Your task to perform on an android device: turn on data saver in the chrome app Image 0: 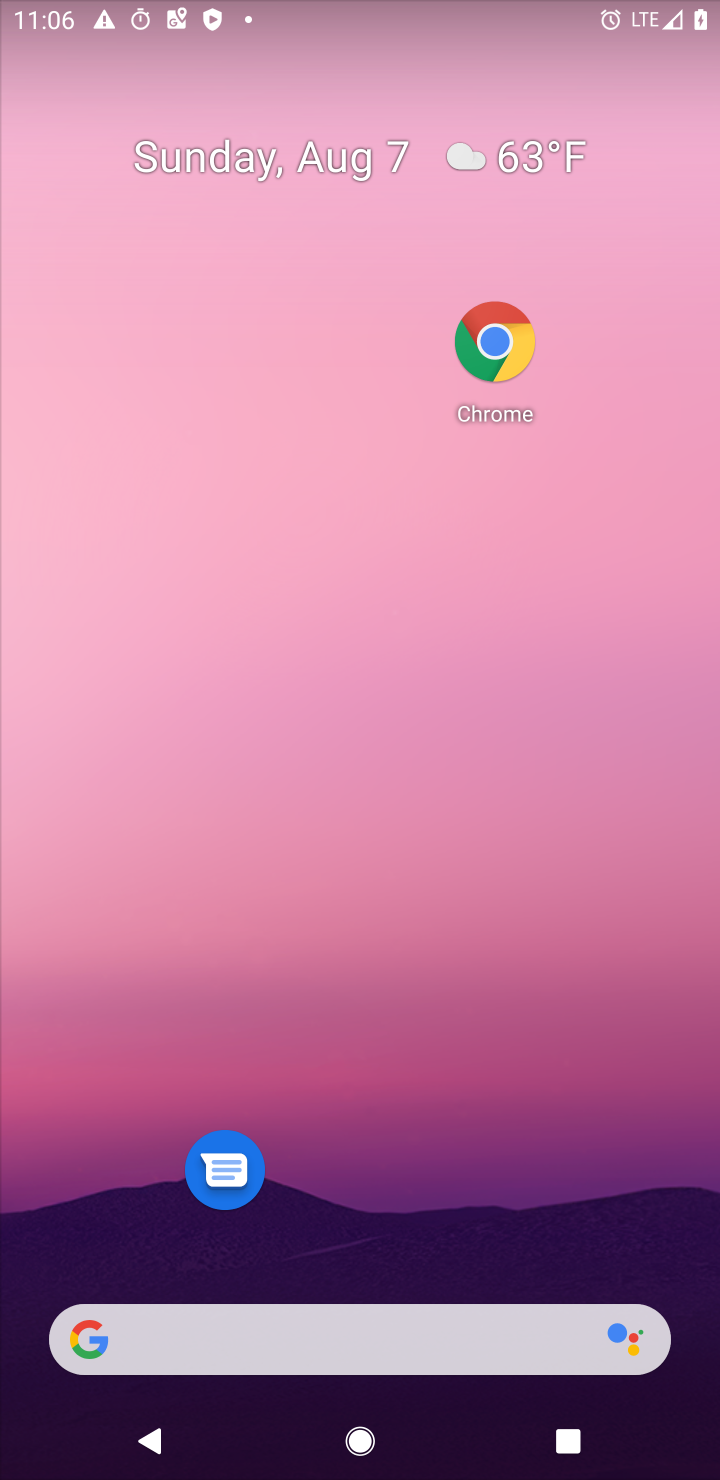
Step 0: drag from (328, 1322) to (246, 18)
Your task to perform on an android device: turn on data saver in the chrome app Image 1: 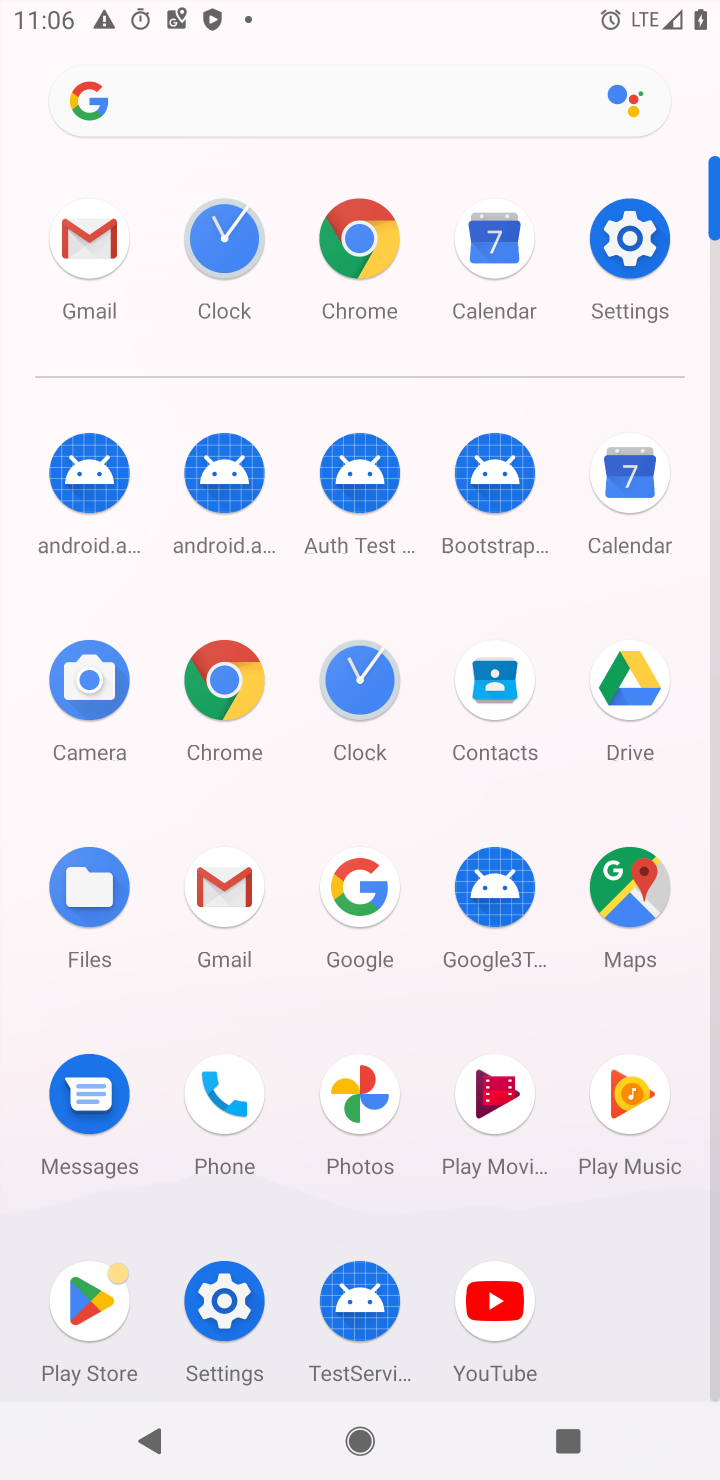
Step 1: click (222, 682)
Your task to perform on an android device: turn on data saver in the chrome app Image 2: 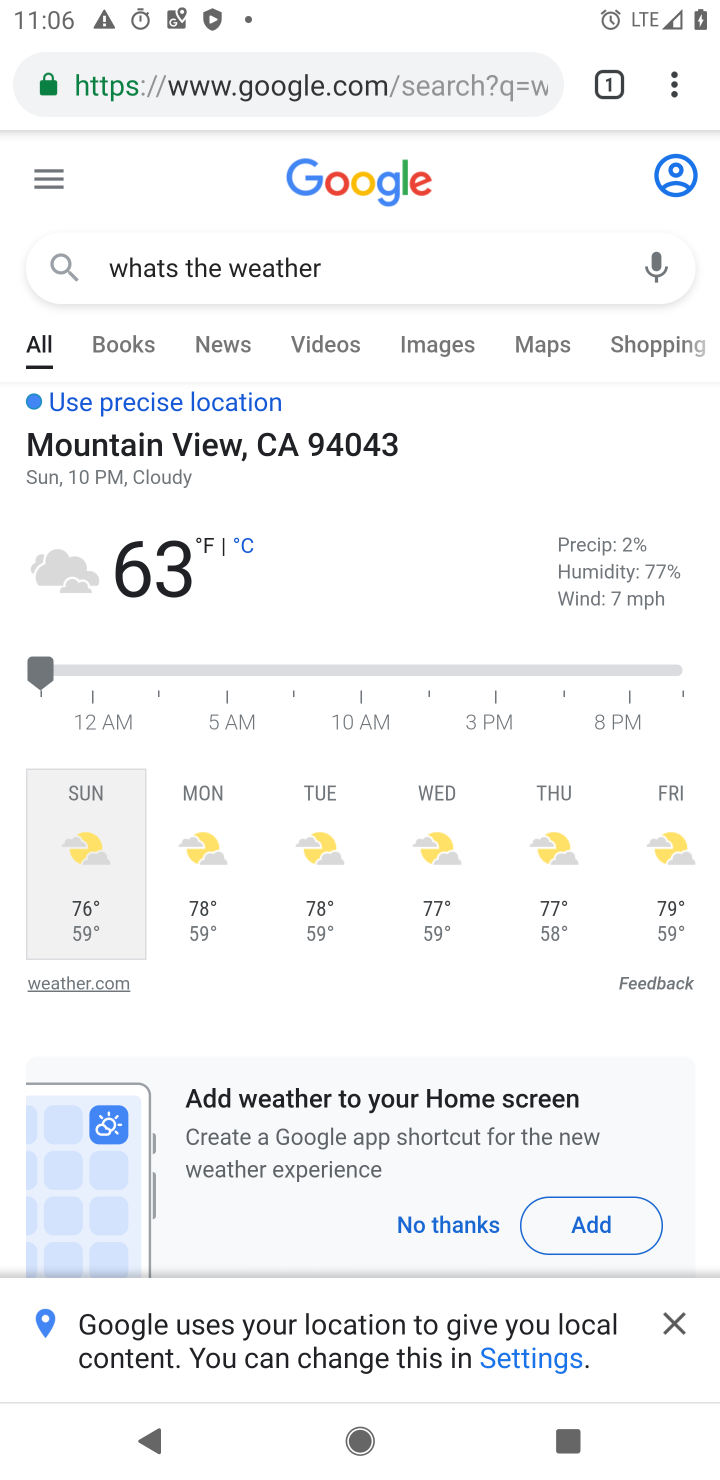
Step 2: click (660, 87)
Your task to perform on an android device: turn on data saver in the chrome app Image 3: 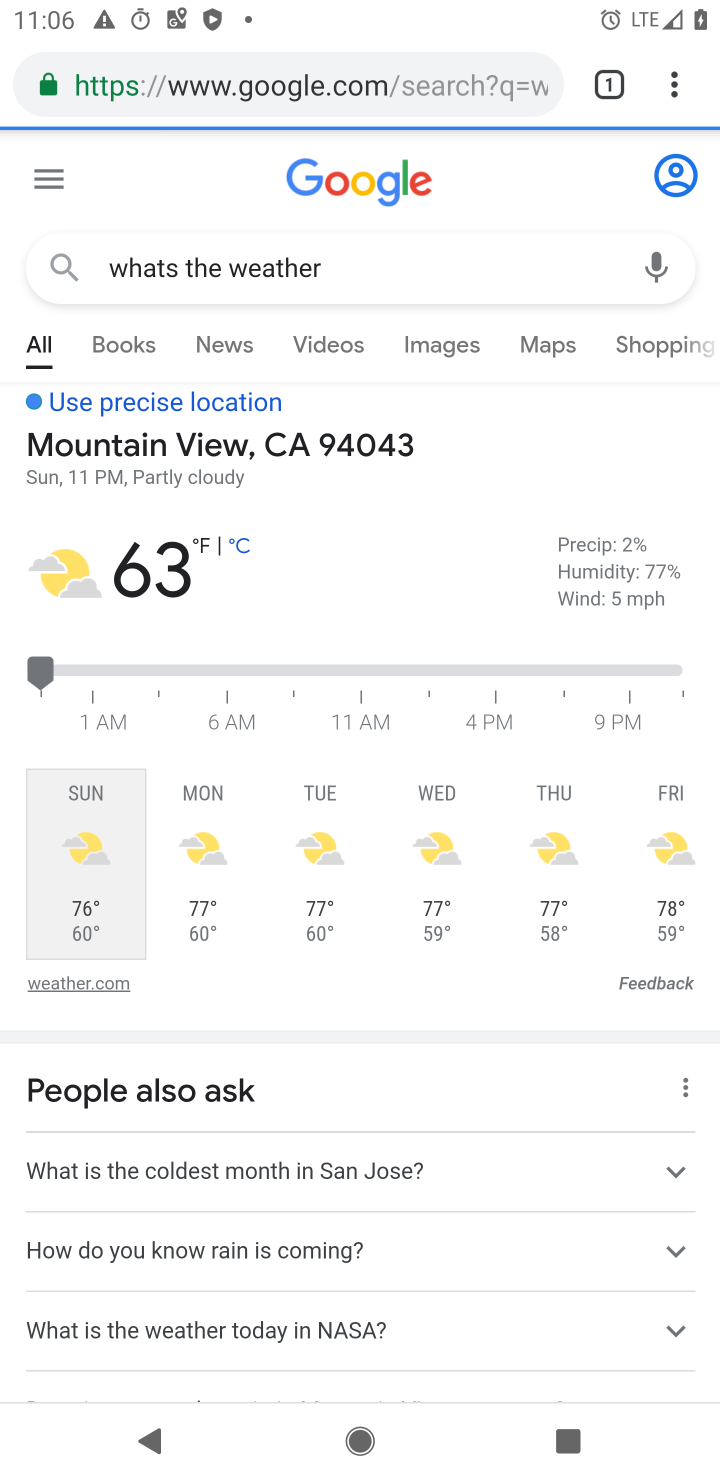
Step 3: click (679, 82)
Your task to perform on an android device: turn on data saver in the chrome app Image 4: 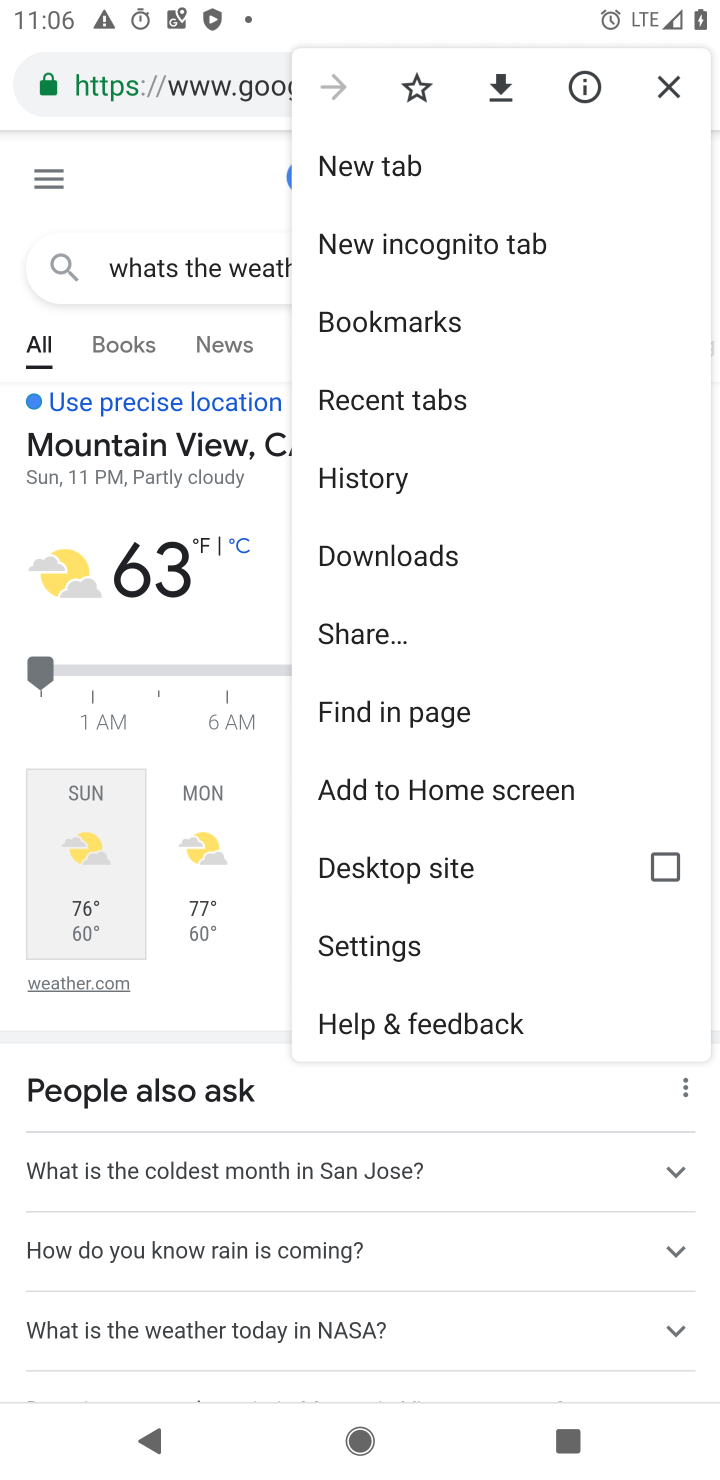
Step 4: click (406, 947)
Your task to perform on an android device: turn on data saver in the chrome app Image 5: 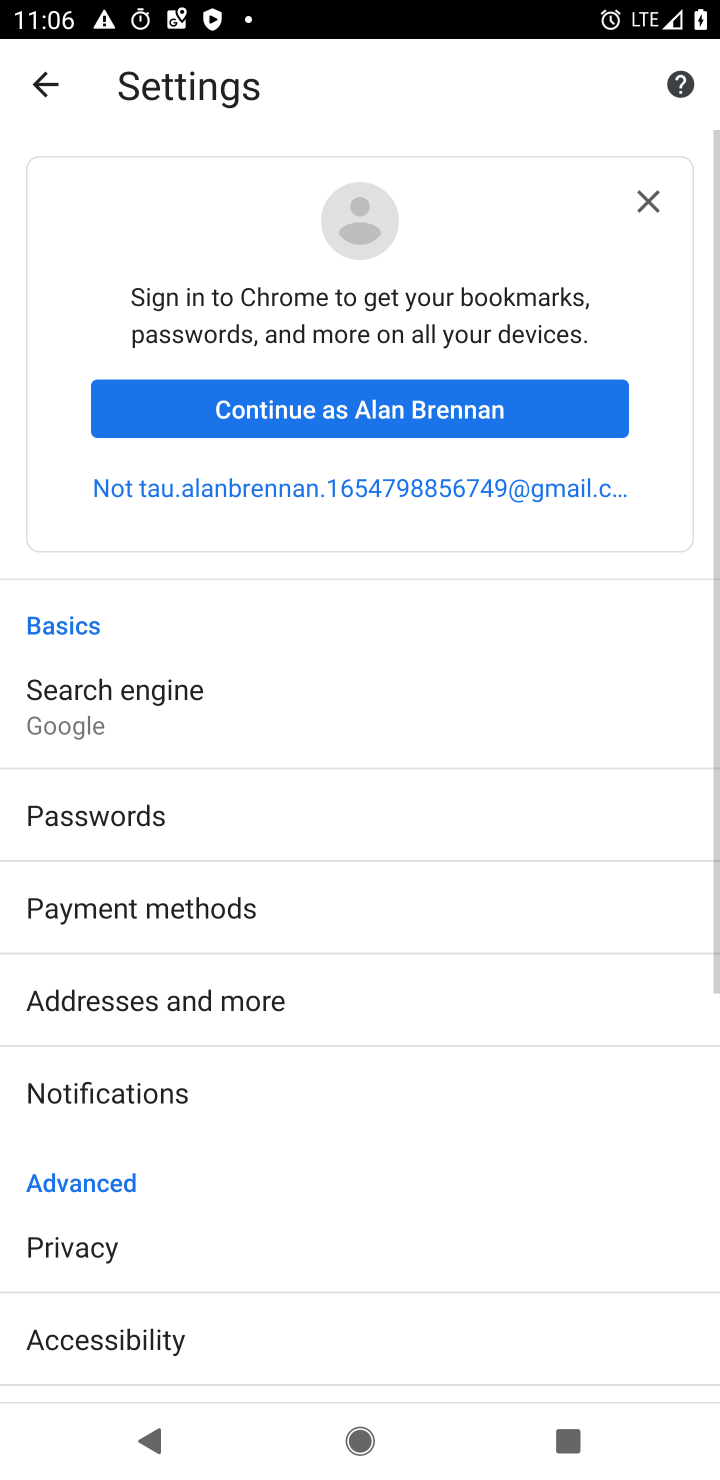
Step 5: drag from (432, 1247) to (389, 745)
Your task to perform on an android device: turn on data saver in the chrome app Image 6: 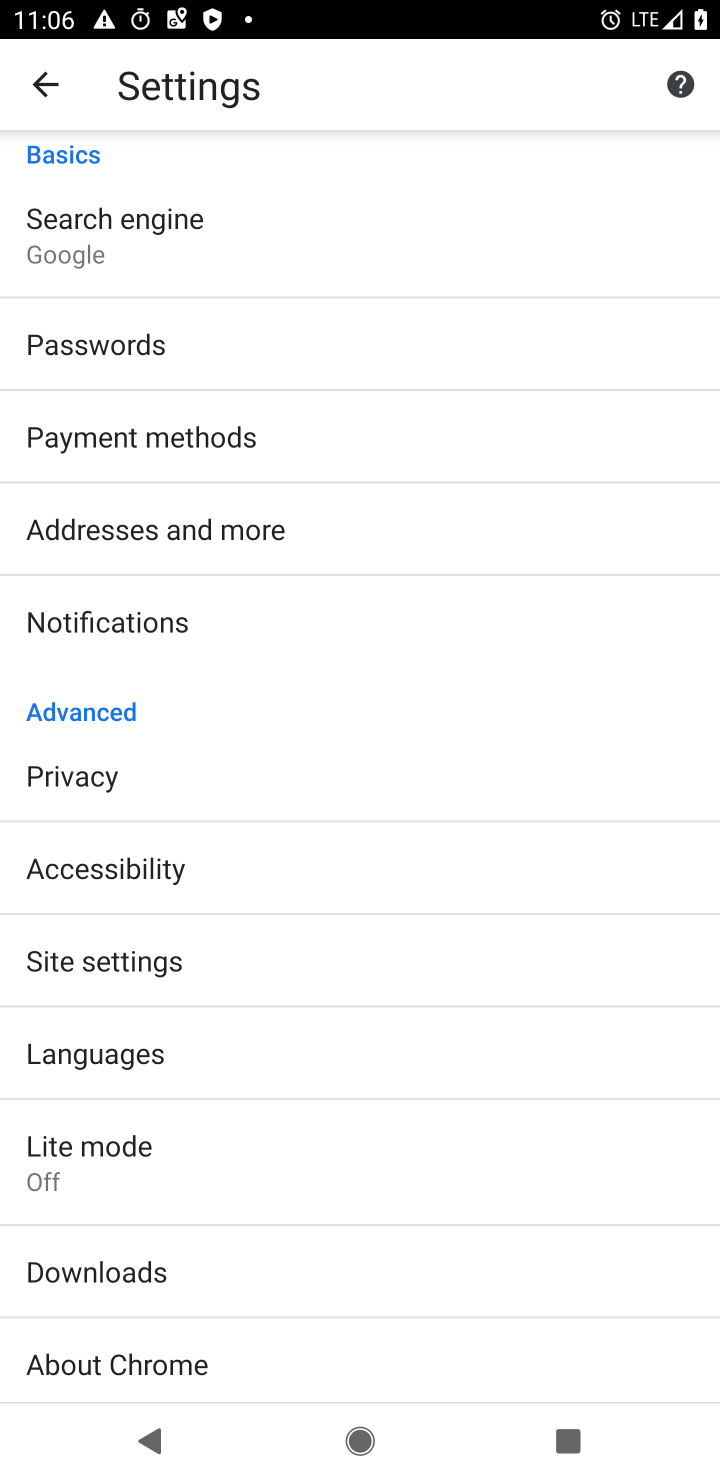
Step 6: click (177, 1140)
Your task to perform on an android device: turn on data saver in the chrome app Image 7: 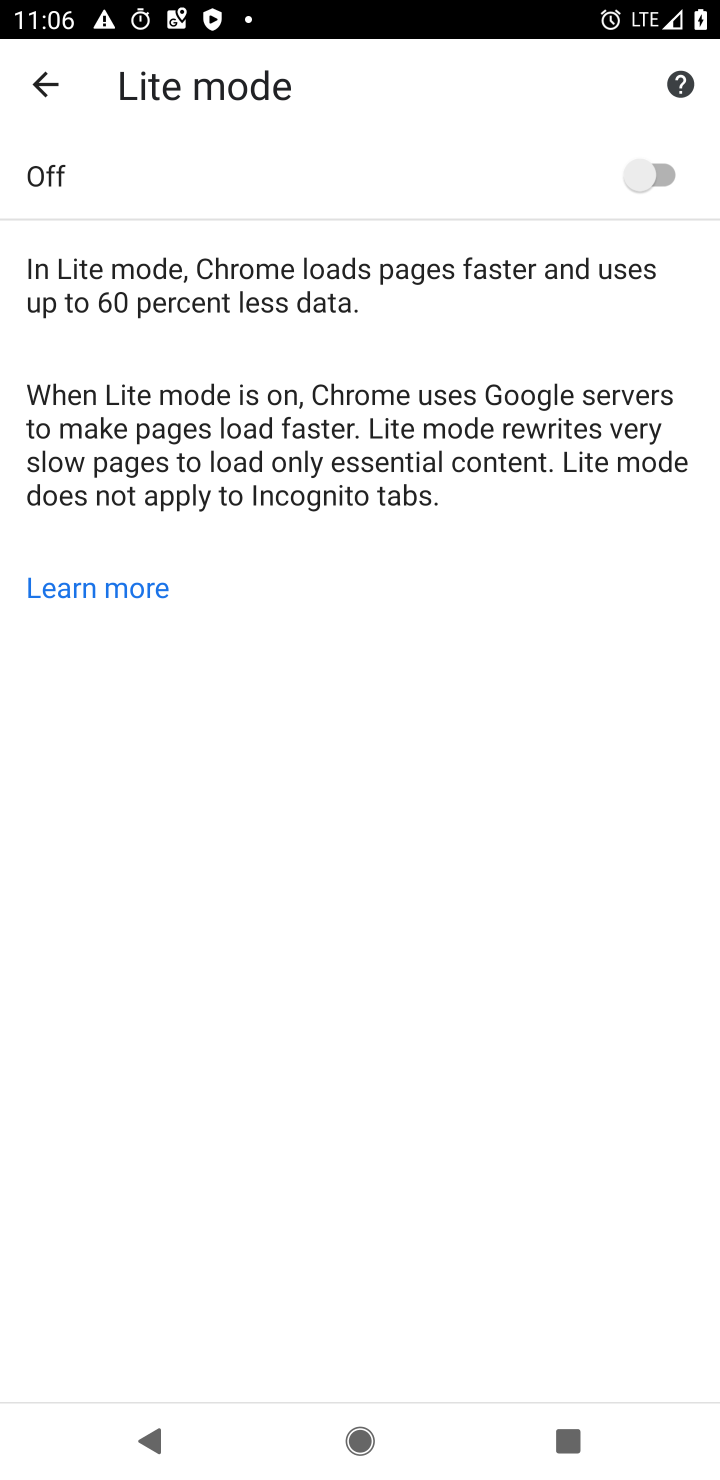
Step 7: click (669, 171)
Your task to perform on an android device: turn on data saver in the chrome app Image 8: 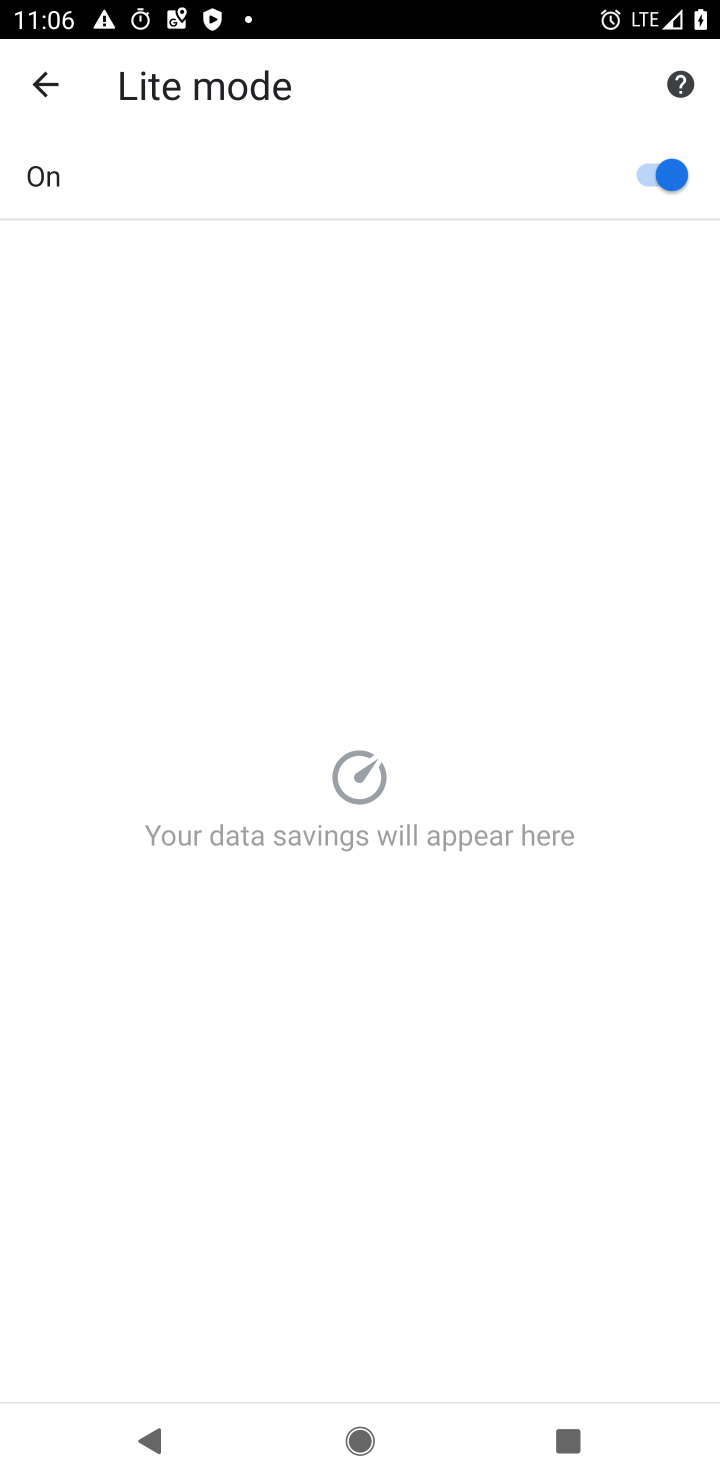
Step 8: task complete